Your task to perform on an android device: Search for "jbl charge 4" on amazon.com, select the first entry, and add it to the cart. Image 0: 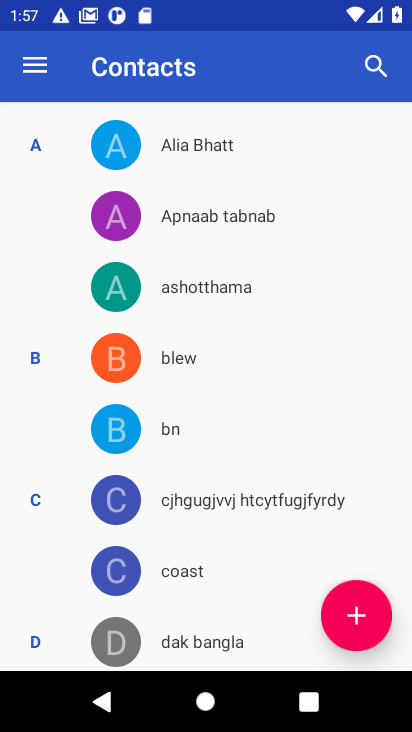
Step 0: press home button
Your task to perform on an android device: Search for "jbl charge 4" on amazon.com, select the first entry, and add it to the cart. Image 1: 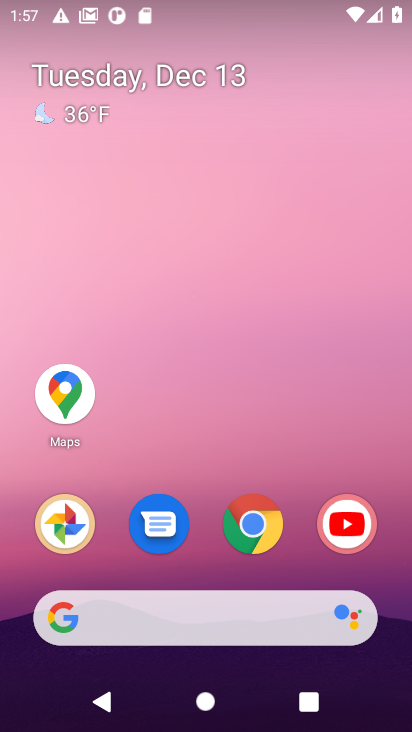
Step 1: click (253, 534)
Your task to perform on an android device: Search for "jbl charge 4" on amazon.com, select the first entry, and add it to the cart. Image 2: 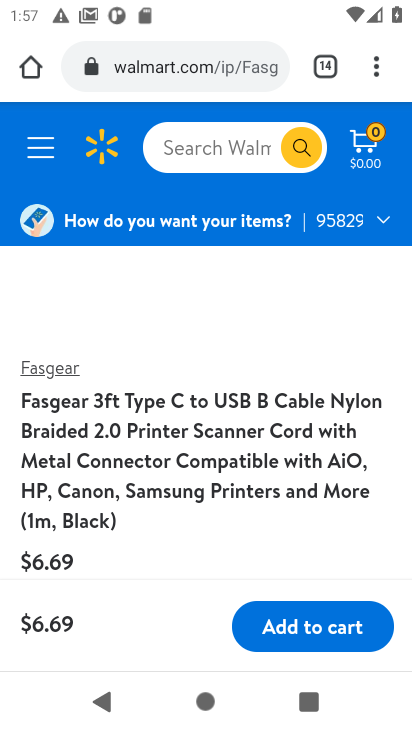
Step 2: click (168, 73)
Your task to perform on an android device: Search for "jbl charge 4" on amazon.com, select the first entry, and add it to the cart. Image 3: 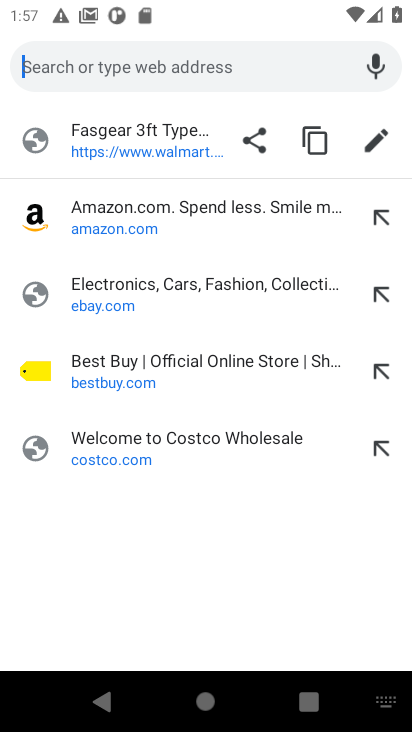
Step 3: click (90, 227)
Your task to perform on an android device: Search for "jbl charge 4" on amazon.com, select the first entry, and add it to the cart. Image 4: 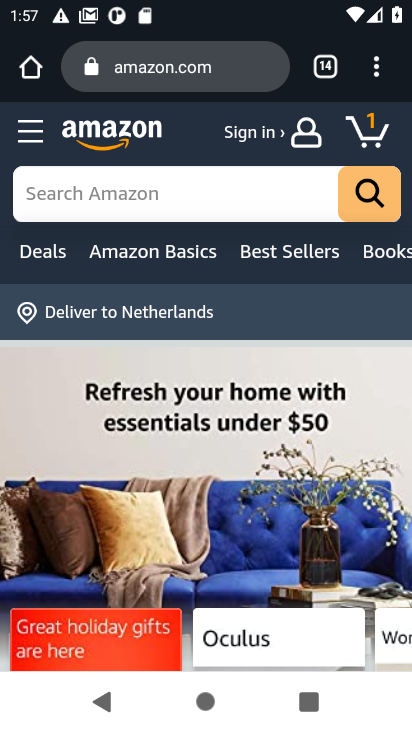
Step 4: click (80, 195)
Your task to perform on an android device: Search for "jbl charge 4" on amazon.com, select the first entry, and add it to the cart. Image 5: 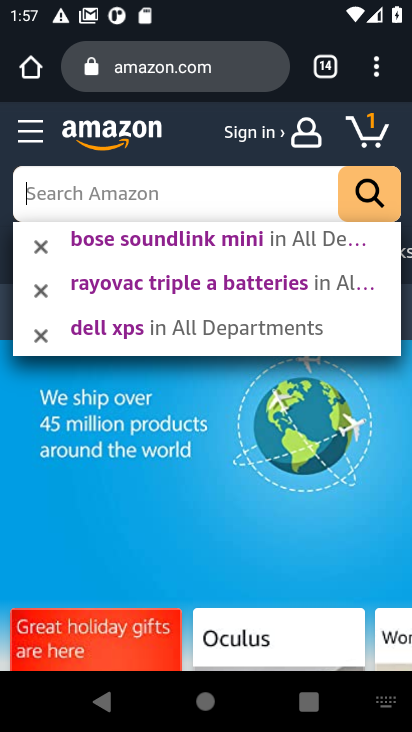
Step 5: type "jbl charge 4"
Your task to perform on an android device: Search for "jbl charge 4" on amazon.com, select the first entry, and add it to the cart. Image 6: 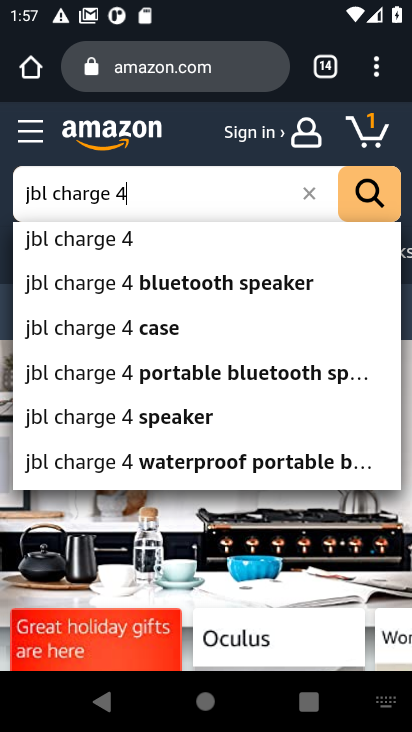
Step 6: click (79, 240)
Your task to perform on an android device: Search for "jbl charge 4" on amazon.com, select the first entry, and add it to the cart. Image 7: 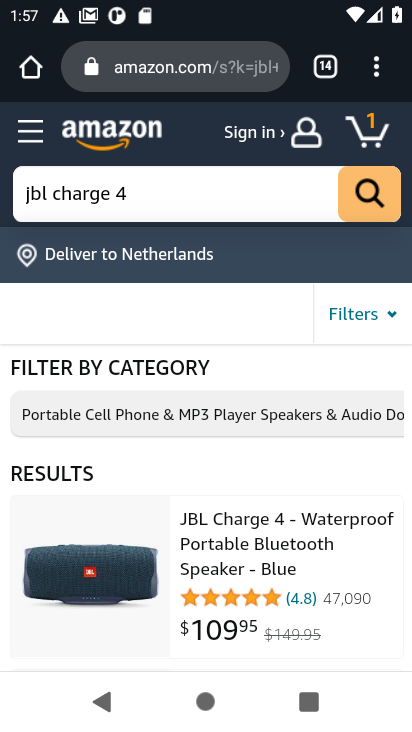
Step 7: drag from (204, 482) to (204, 308)
Your task to perform on an android device: Search for "jbl charge 4" on amazon.com, select the first entry, and add it to the cart. Image 8: 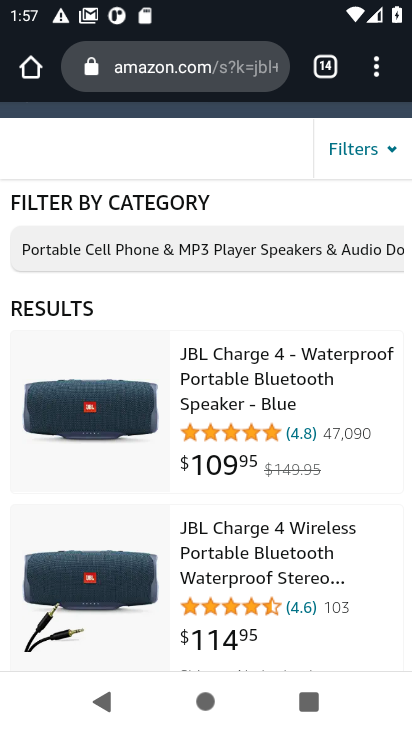
Step 8: click (229, 366)
Your task to perform on an android device: Search for "jbl charge 4" on amazon.com, select the first entry, and add it to the cart. Image 9: 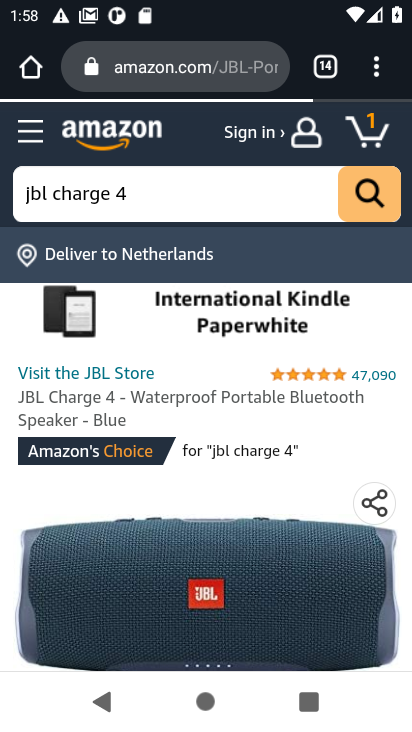
Step 9: task complete